Your task to perform on an android device: What's the weather going to be tomorrow? Image 0: 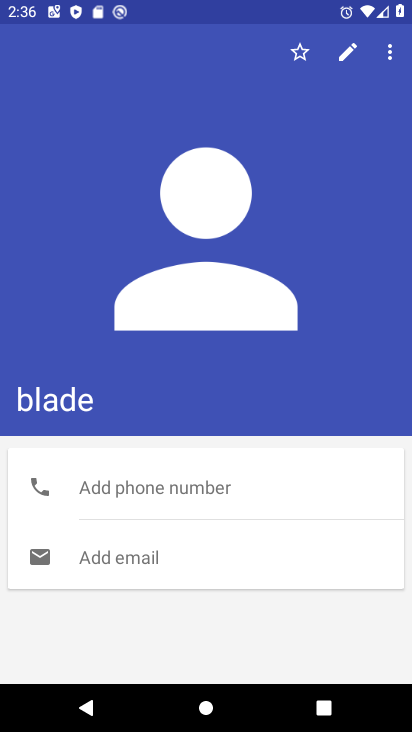
Step 0: press home button
Your task to perform on an android device: What's the weather going to be tomorrow? Image 1: 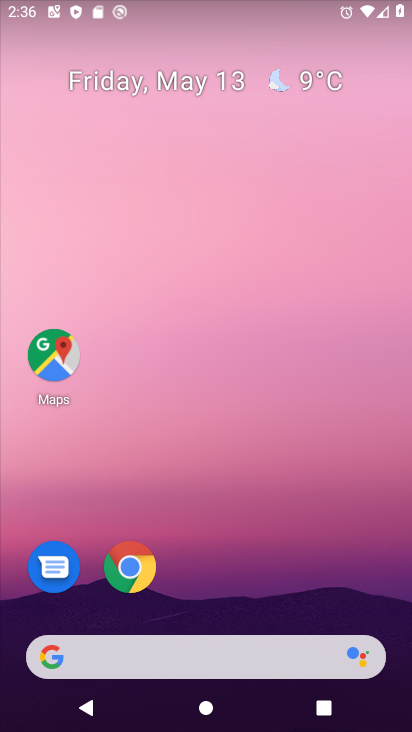
Step 1: click (310, 82)
Your task to perform on an android device: What's the weather going to be tomorrow? Image 2: 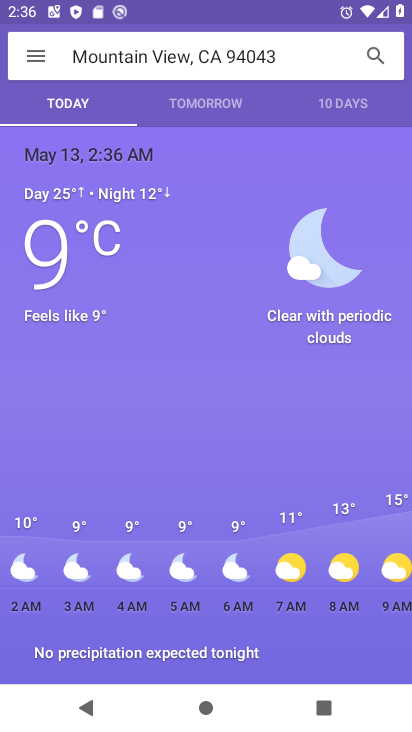
Step 2: click (216, 94)
Your task to perform on an android device: What's the weather going to be tomorrow? Image 3: 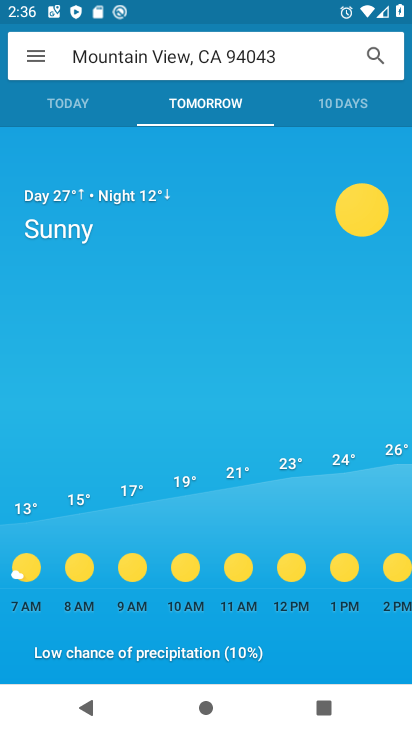
Step 3: task complete